Your task to perform on an android device: change your default location settings in chrome Image 0: 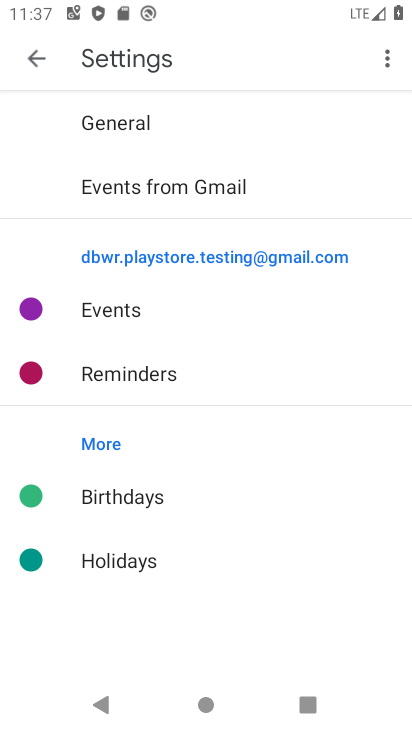
Step 0: press home button
Your task to perform on an android device: change your default location settings in chrome Image 1: 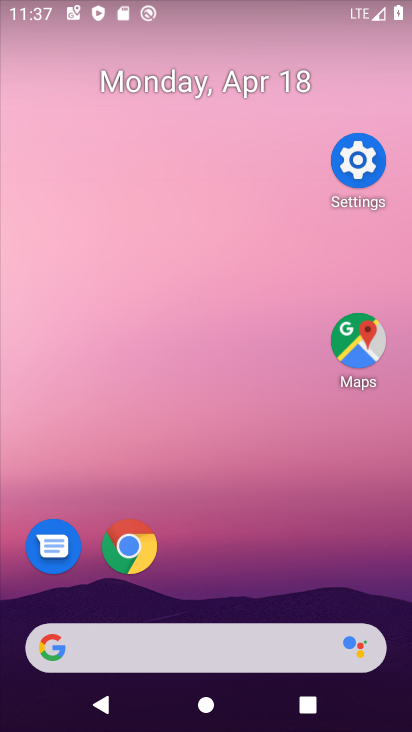
Step 1: drag from (288, 596) to (150, 69)
Your task to perform on an android device: change your default location settings in chrome Image 2: 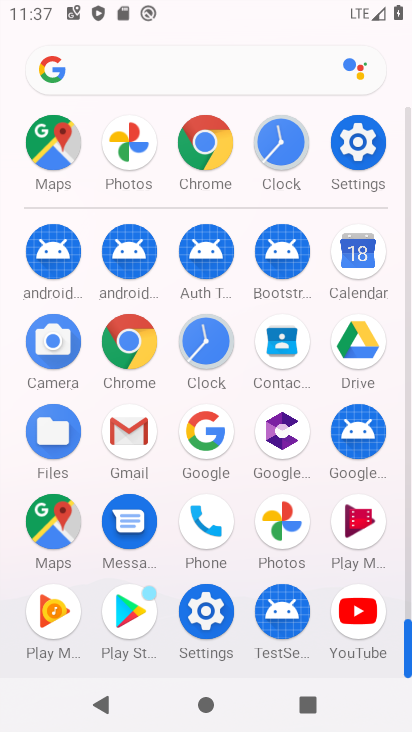
Step 2: click (224, 150)
Your task to perform on an android device: change your default location settings in chrome Image 3: 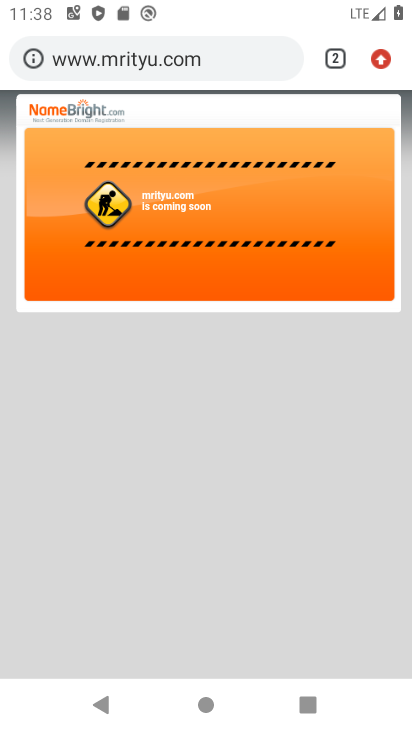
Step 3: press home button
Your task to perform on an android device: change your default location settings in chrome Image 4: 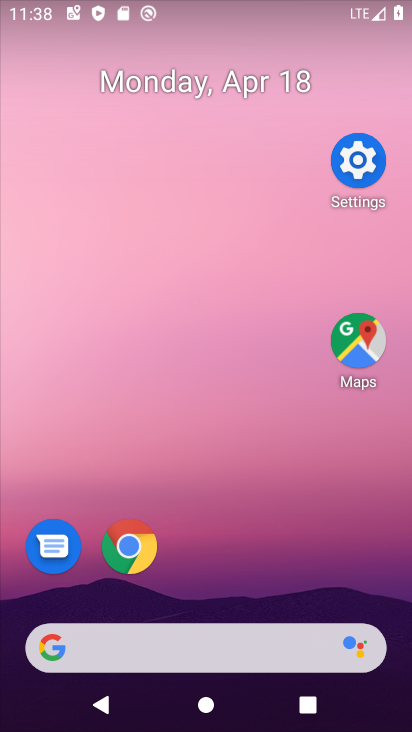
Step 4: drag from (233, 643) to (142, 162)
Your task to perform on an android device: change your default location settings in chrome Image 5: 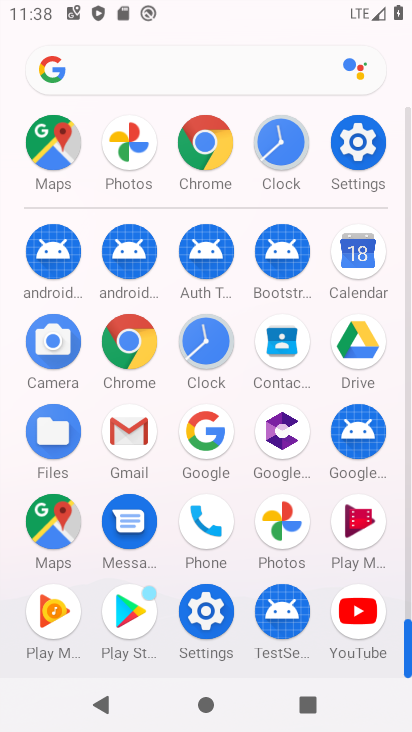
Step 5: click (205, 153)
Your task to perform on an android device: change your default location settings in chrome Image 6: 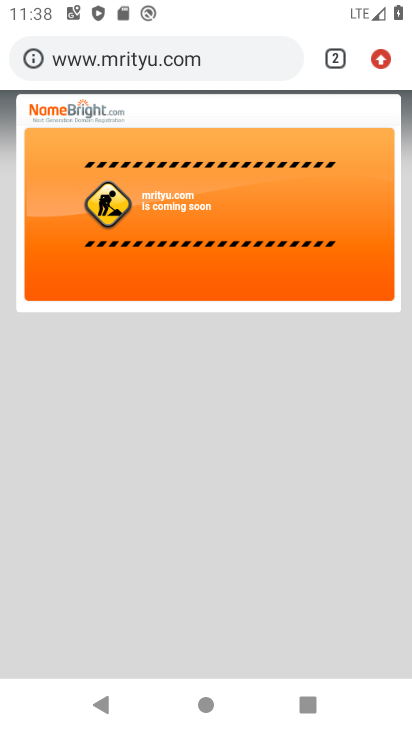
Step 6: click (383, 58)
Your task to perform on an android device: change your default location settings in chrome Image 7: 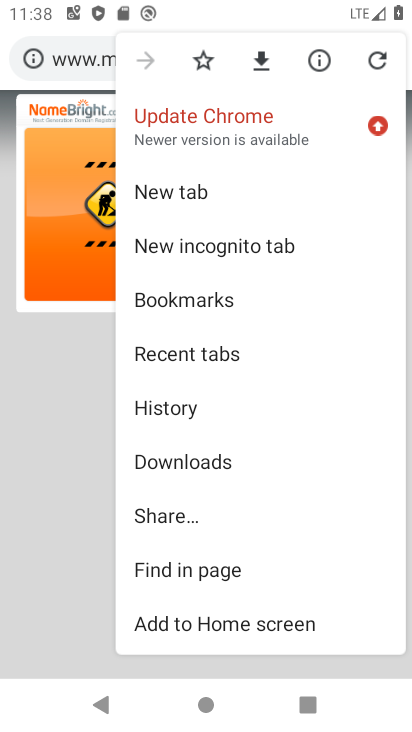
Step 7: drag from (246, 557) to (205, 161)
Your task to perform on an android device: change your default location settings in chrome Image 8: 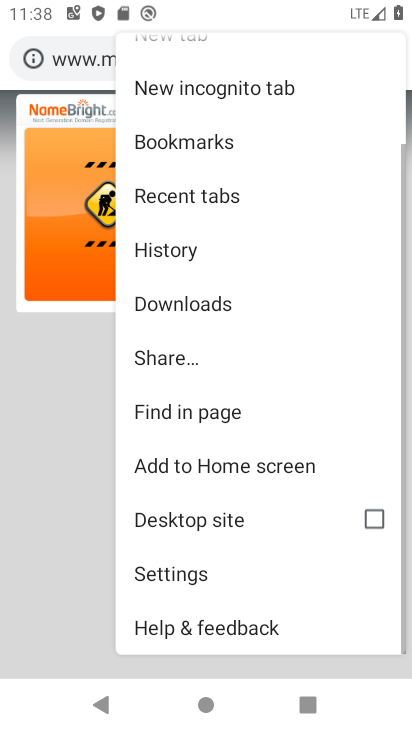
Step 8: drag from (179, 567) to (179, 605)
Your task to perform on an android device: change your default location settings in chrome Image 9: 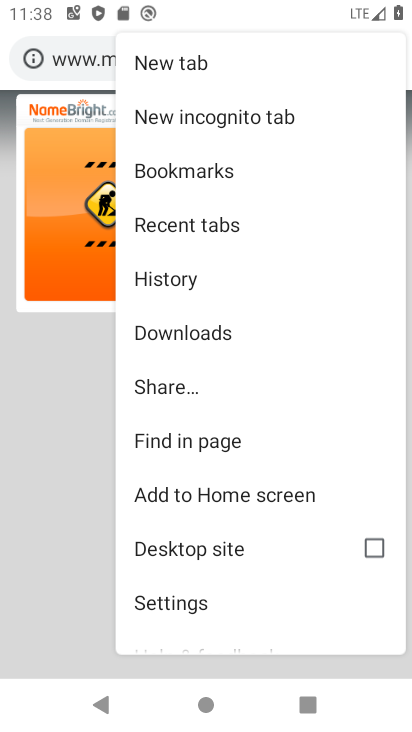
Step 9: click (174, 600)
Your task to perform on an android device: change your default location settings in chrome Image 10: 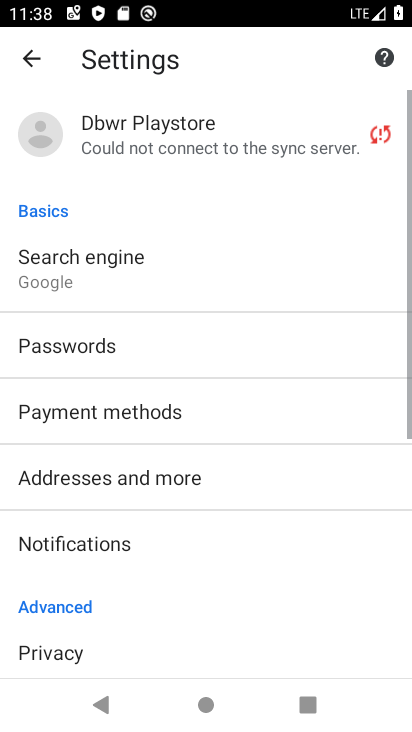
Step 10: drag from (135, 581) to (220, 128)
Your task to perform on an android device: change your default location settings in chrome Image 11: 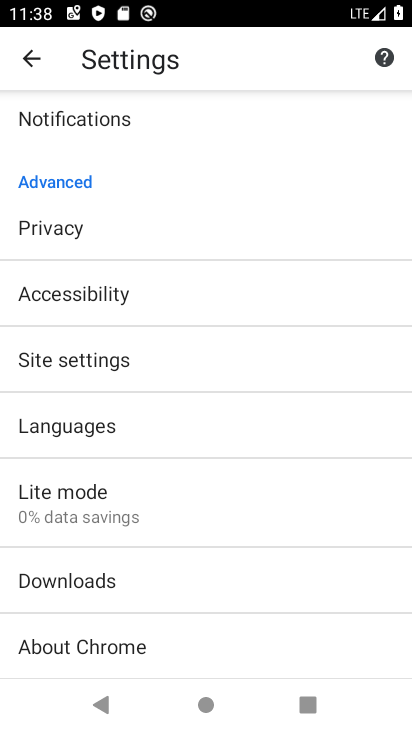
Step 11: click (64, 360)
Your task to perform on an android device: change your default location settings in chrome Image 12: 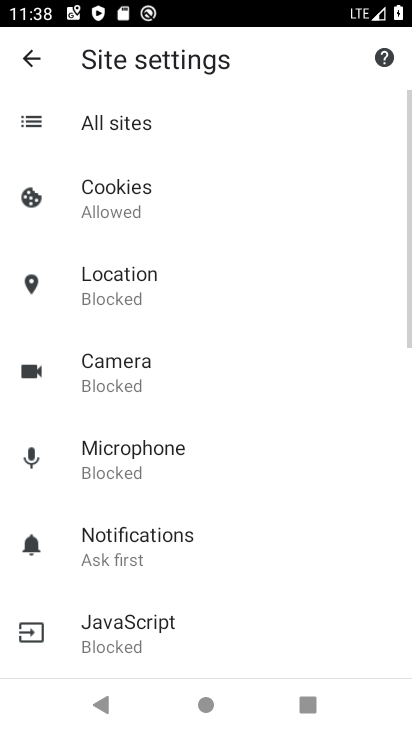
Step 12: click (96, 297)
Your task to perform on an android device: change your default location settings in chrome Image 13: 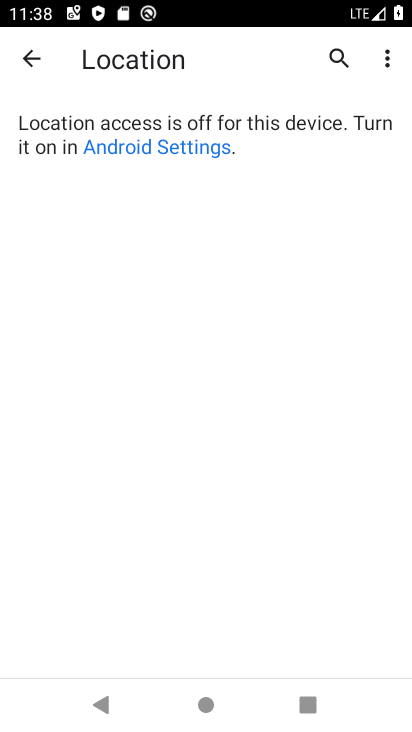
Step 13: click (156, 119)
Your task to perform on an android device: change your default location settings in chrome Image 14: 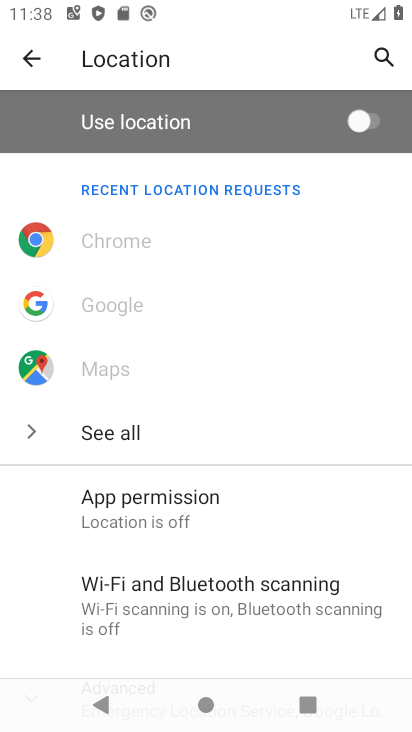
Step 14: click (353, 113)
Your task to perform on an android device: change your default location settings in chrome Image 15: 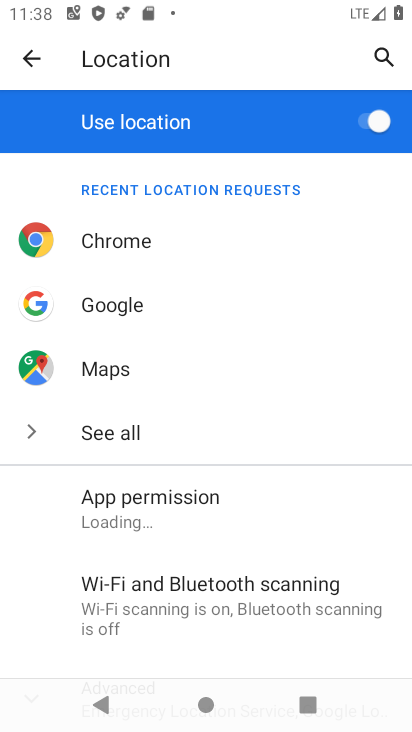
Step 15: task complete